Your task to perform on an android device: delete browsing data in the chrome app Image 0: 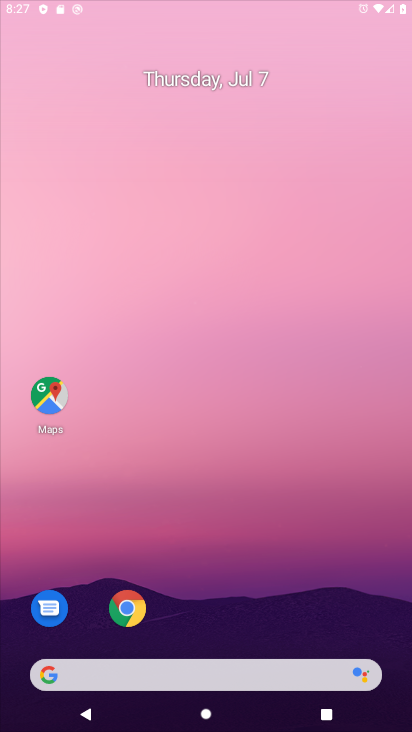
Step 0: click (250, 248)
Your task to perform on an android device: delete browsing data in the chrome app Image 1: 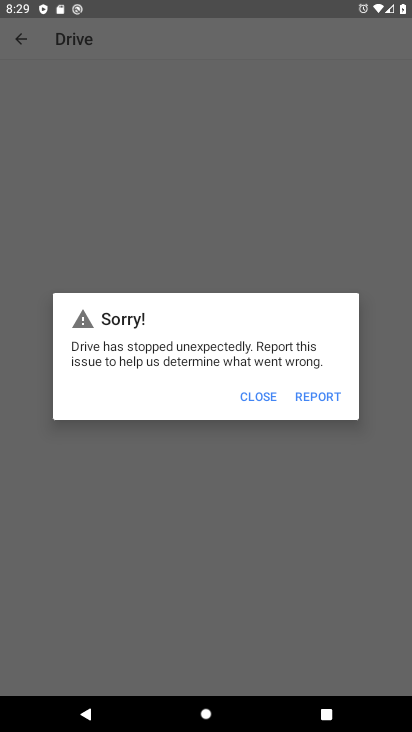
Step 1: press home button
Your task to perform on an android device: delete browsing data in the chrome app Image 2: 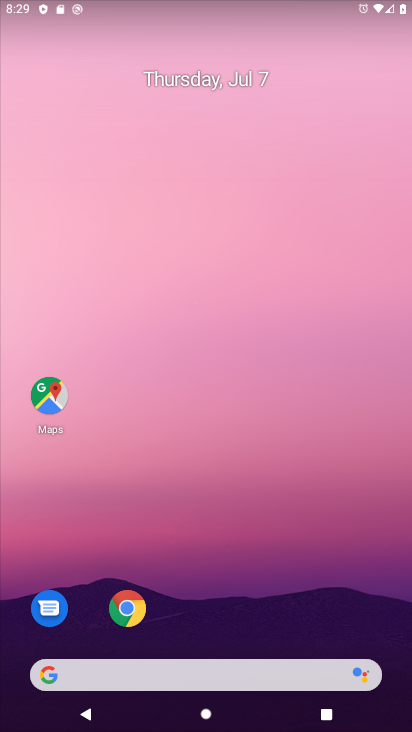
Step 2: drag from (229, 644) to (233, 205)
Your task to perform on an android device: delete browsing data in the chrome app Image 3: 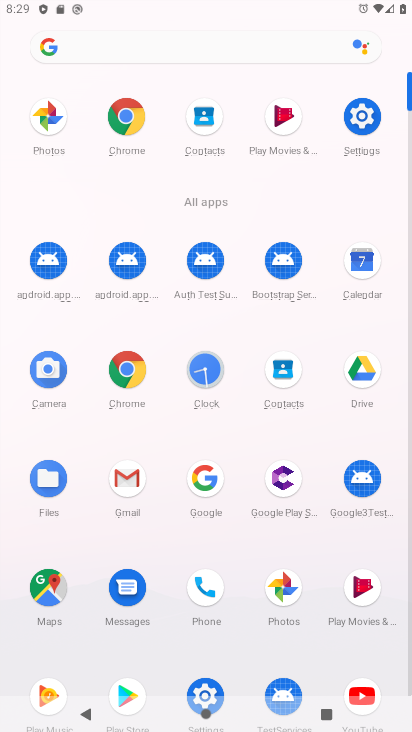
Step 3: click (127, 362)
Your task to perform on an android device: delete browsing data in the chrome app Image 4: 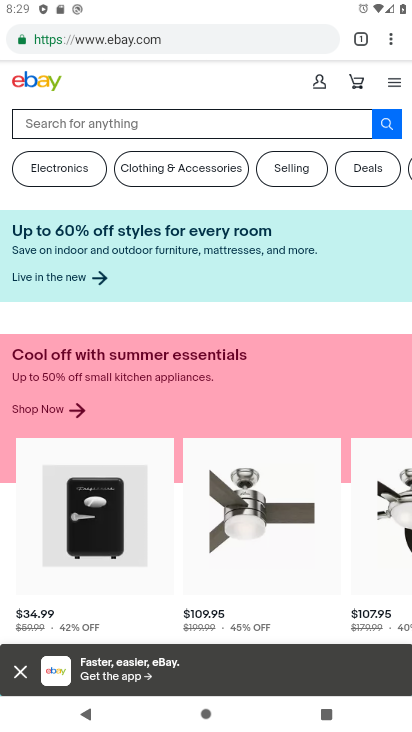
Step 4: click (390, 36)
Your task to perform on an android device: delete browsing data in the chrome app Image 5: 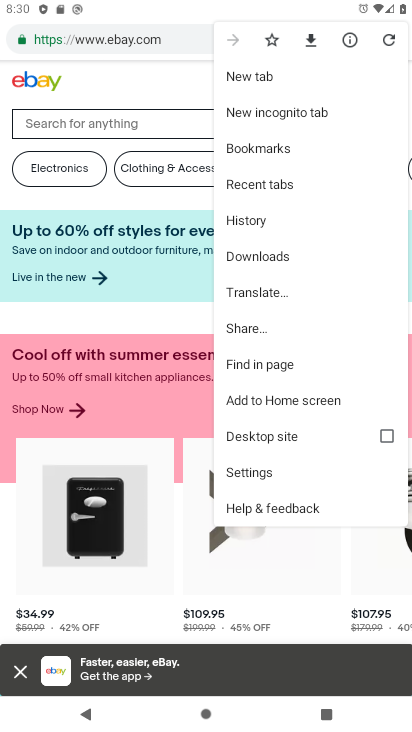
Step 5: click (247, 220)
Your task to perform on an android device: delete browsing data in the chrome app Image 6: 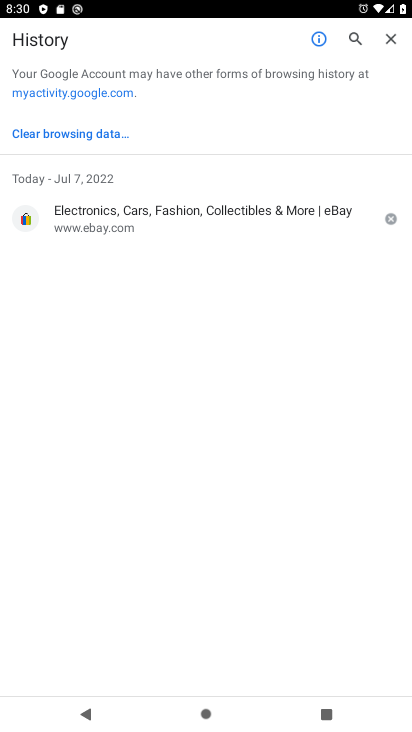
Step 6: click (54, 133)
Your task to perform on an android device: delete browsing data in the chrome app Image 7: 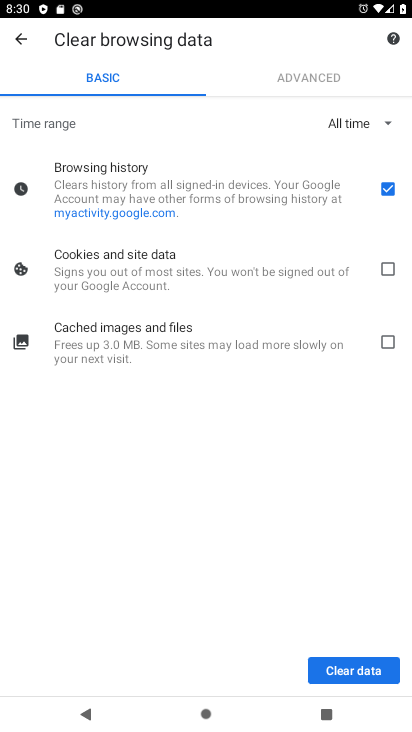
Step 7: click (387, 264)
Your task to perform on an android device: delete browsing data in the chrome app Image 8: 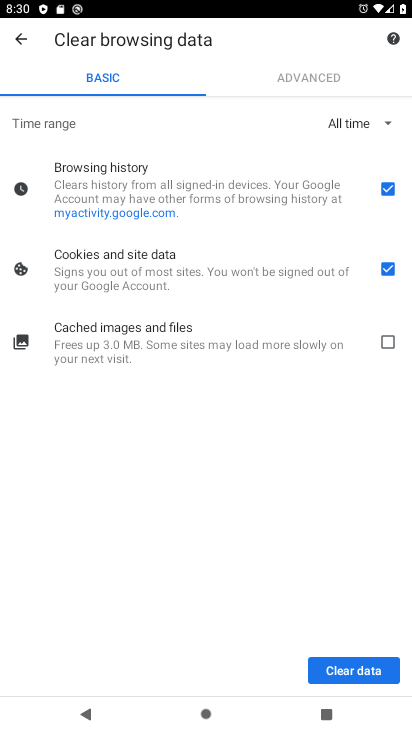
Step 8: click (389, 342)
Your task to perform on an android device: delete browsing data in the chrome app Image 9: 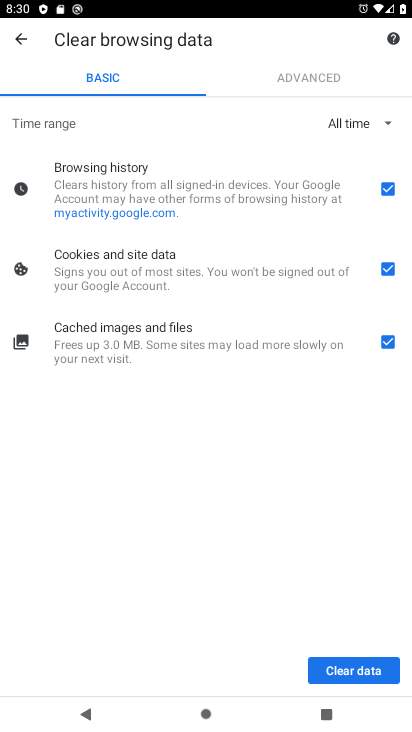
Step 9: click (342, 676)
Your task to perform on an android device: delete browsing data in the chrome app Image 10: 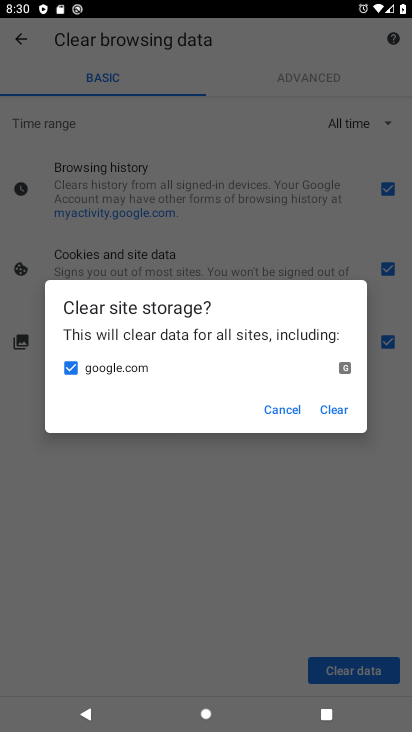
Step 10: click (336, 412)
Your task to perform on an android device: delete browsing data in the chrome app Image 11: 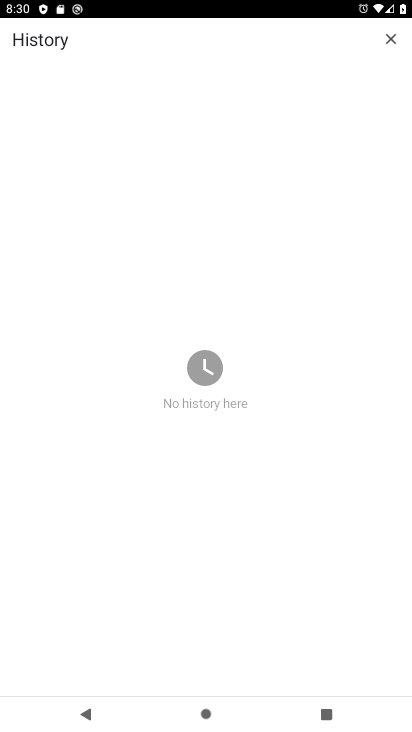
Step 11: task complete